Your task to perform on an android device: Open the map Image 0: 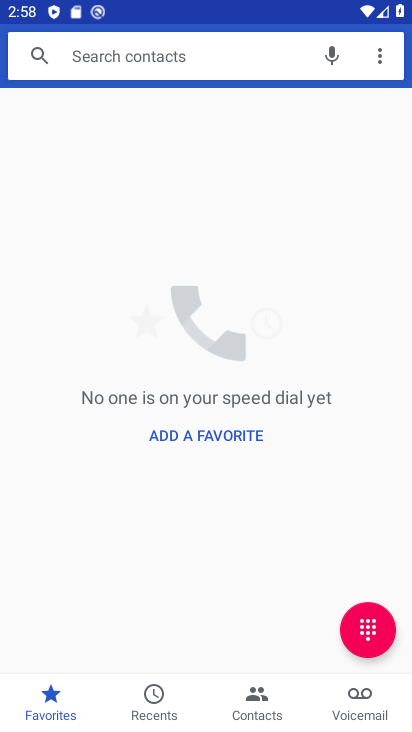
Step 0: press home button
Your task to perform on an android device: Open the map Image 1: 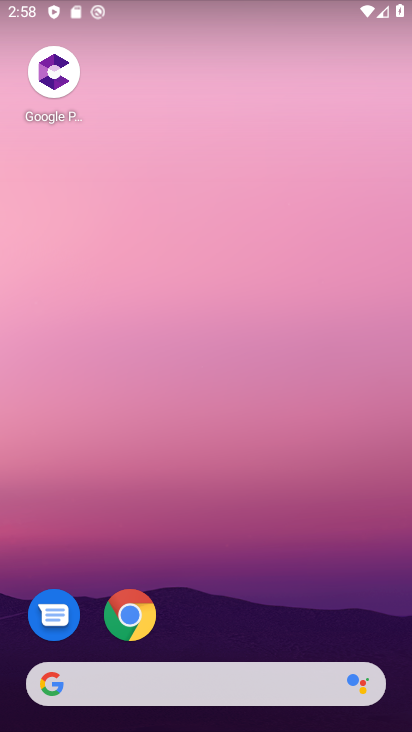
Step 1: drag from (209, 609) to (250, 174)
Your task to perform on an android device: Open the map Image 2: 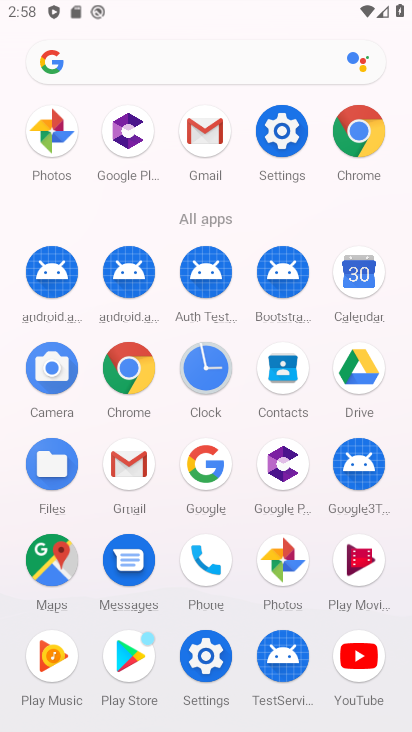
Step 2: click (55, 568)
Your task to perform on an android device: Open the map Image 3: 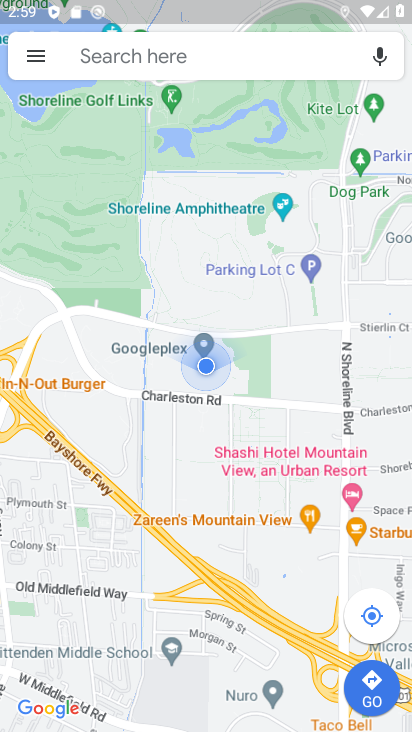
Step 3: task complete